Your task to perform on an android device: turn on data saver in the chrome app Image 0: 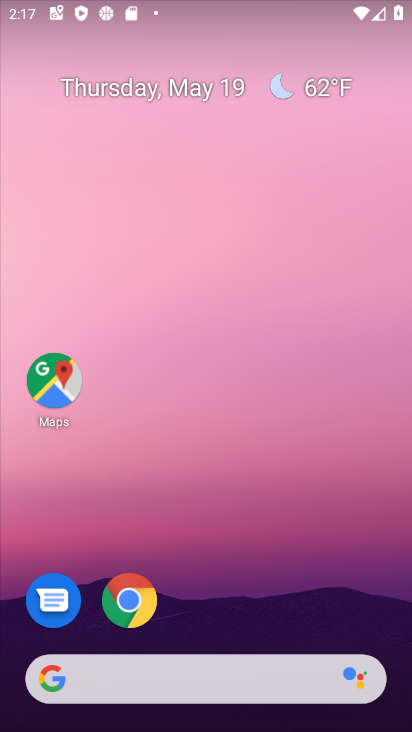
Step 0: click (127, 605)
Your task to perform on an android device: turn on data saver in the chrome app Image 1: 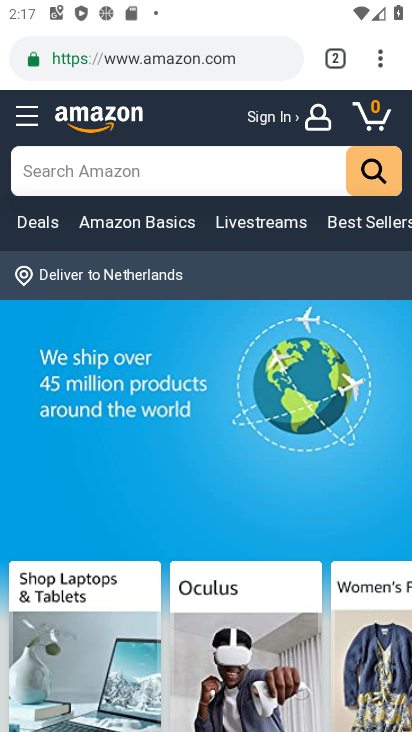
Step 1: click (373, 60)
Your task to perform on an android device: turn on data saver in the chrome app Image 2: 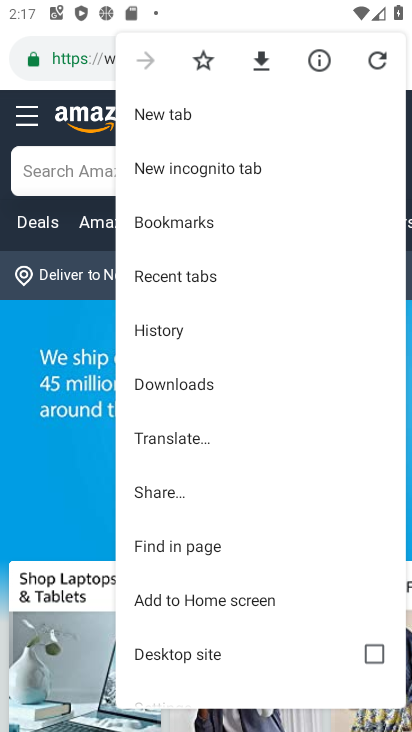
Step 2: drag from (143, 661) to (238, 230)
Your task to perform on an android device: turn on data saver in the chrome app Image 3: 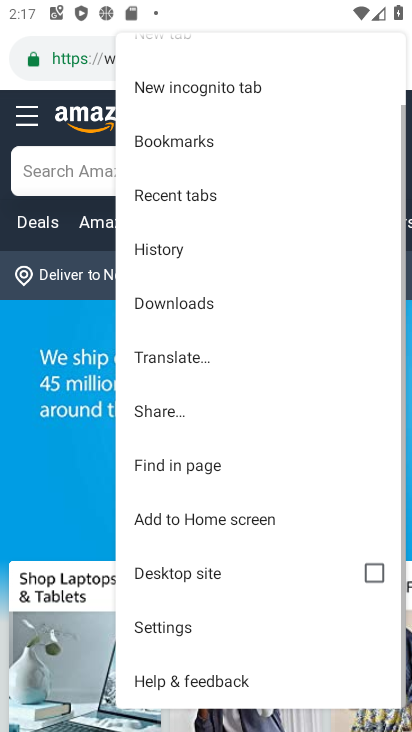
Step 3: click (196, 630)
Your task to perform on an android device: turn on data saver in the chrome app Image 4: 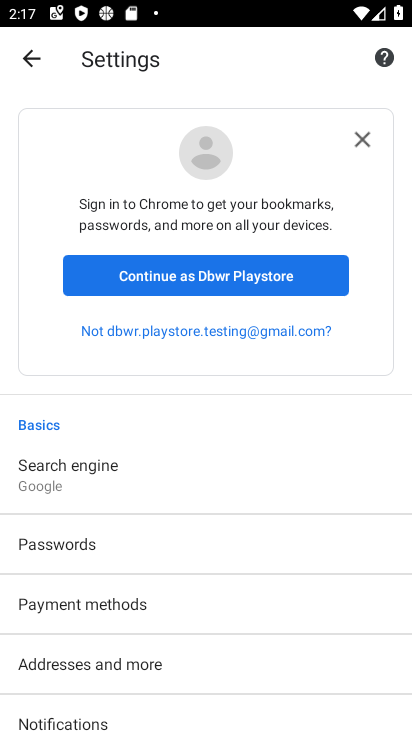
Step 4: drag from (13, 478) to (118, 208)
Your task to perform on an android device: turn on data saver in the chrome app Image 5: 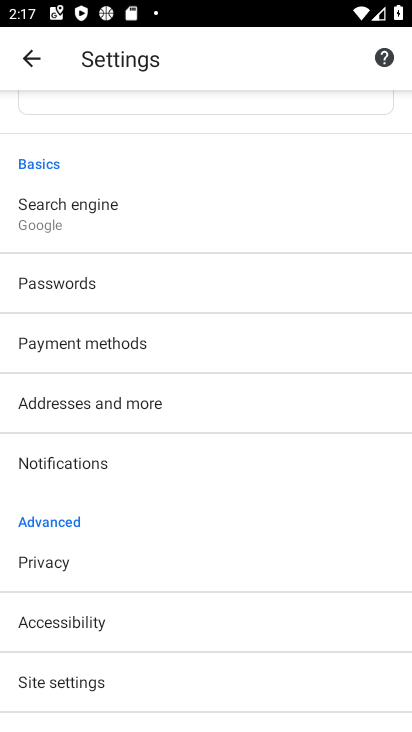
Step 5: drag from (0, 696) to (181, 246)
Your task to perform on an android device: turn on data saver in the chrome app Image 6: 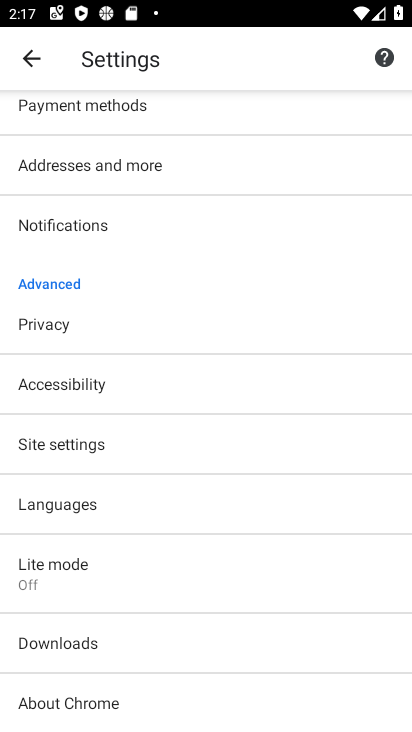
Step 6: click (81, 569)
Your task to perform on an android device: turn on data saver in the chrome app Image 7: 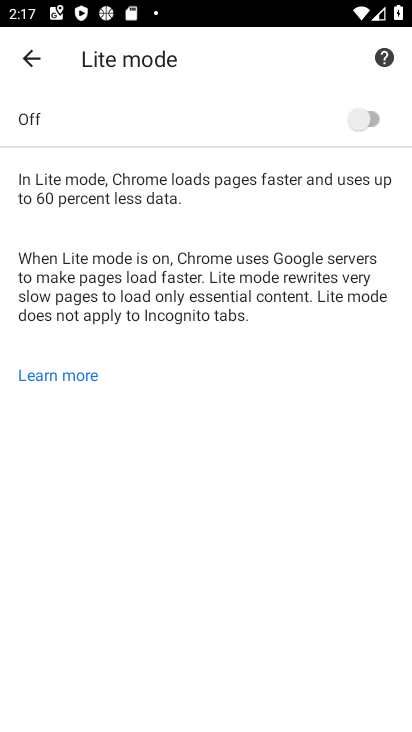
Step 7: click (360, 116)
Your task to perform on an android device: turn on data saver in the chrome app Image 8: 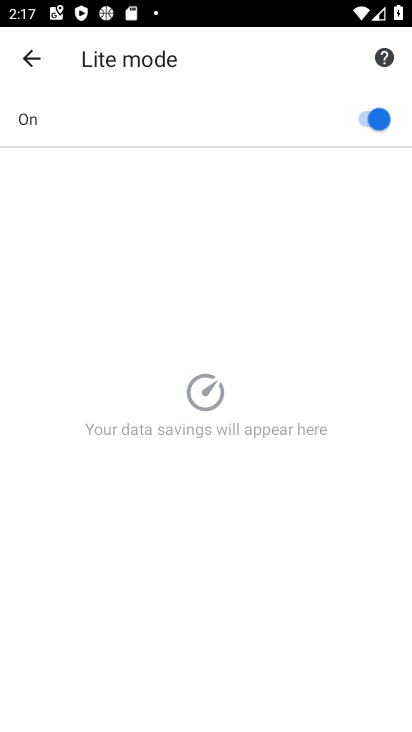
Step 8: task complete